Your task to perform on an android device: turn on javascript in the chrome app Image 0: 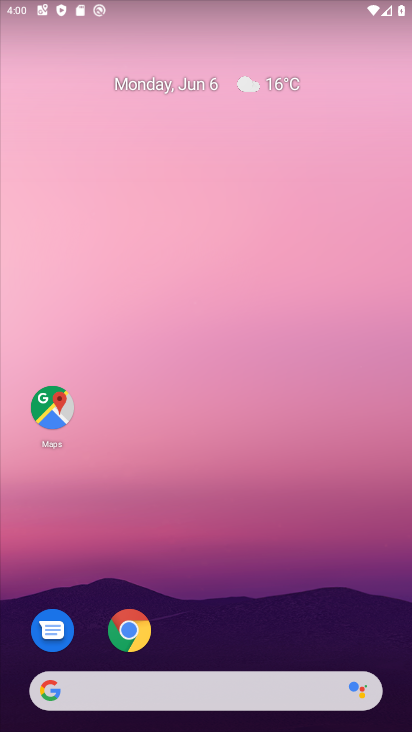
Step 0: click (131, 624)
Your task to perform on an android device: turn on javascript in the chrome app Image 1: 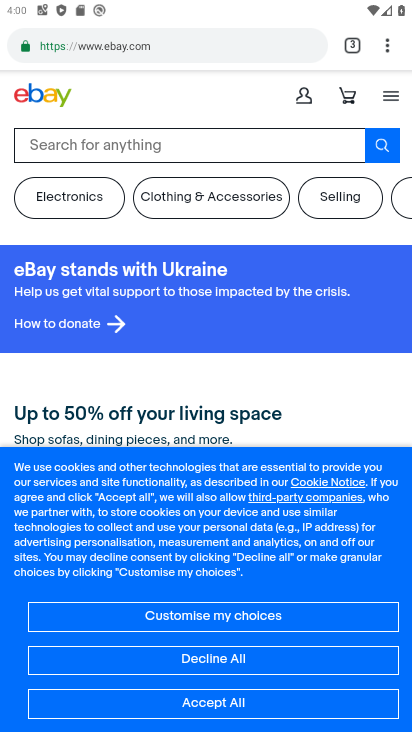
Step 1: drag from (389, 47) to (237, 547)
Your task to perform on an android device: turn on javascript in the chrome app Image 2: 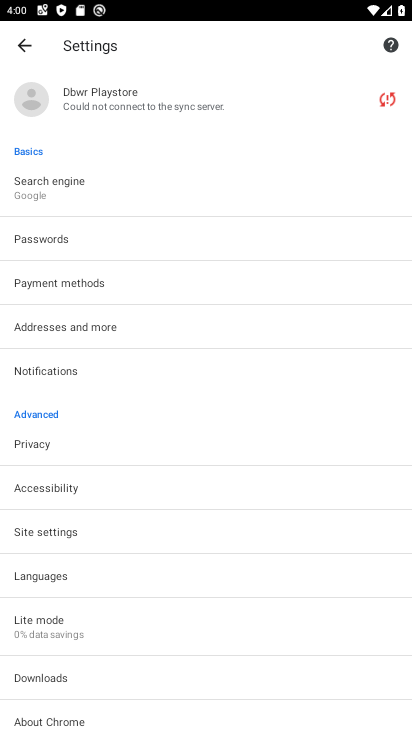
Step 2: click (28, 524)
Your task to perform on an android device: turn on javascript in the chrome app Image 3: 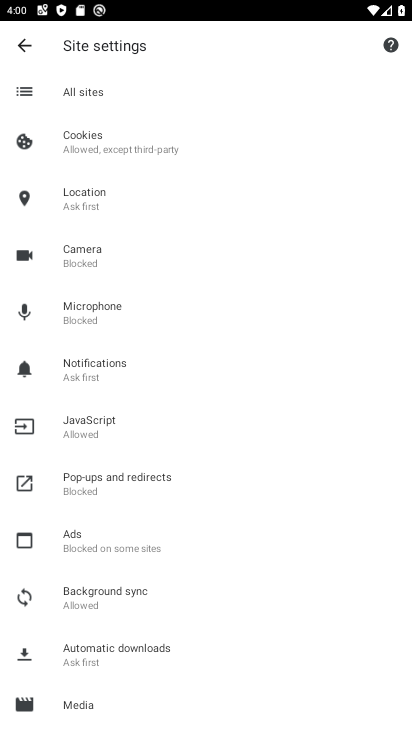
Step 3: click (53, 412)
Your task to perform on an android device: turn on javascript in the chrome app Image 4: 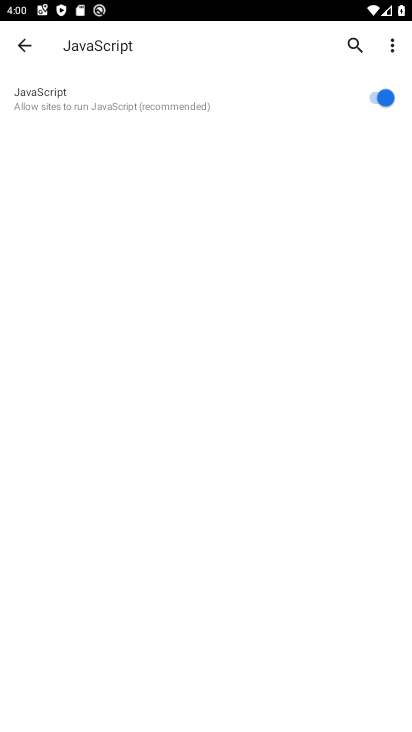
Step 4: task complete